Your task to perform on an android device: toggle javascript in the chrome app Image 0: 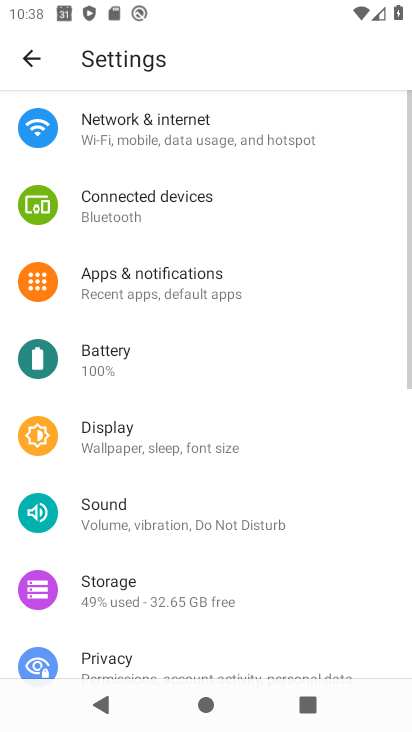
Step 0: press home button
Your task to perform on an android device: toggle javascript in the chrome app Image 1: 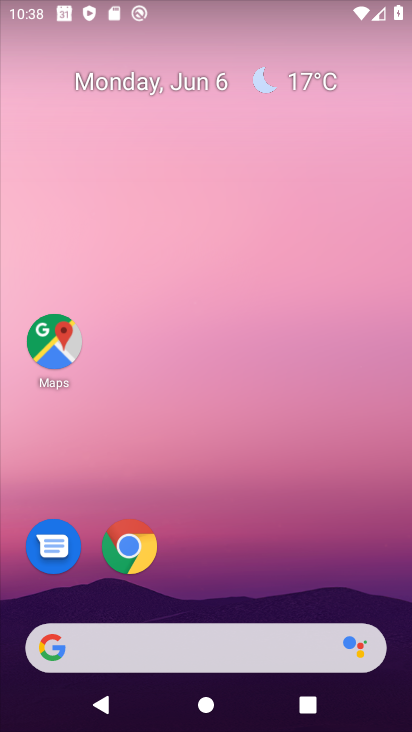
Step 1: drag from (247, 581) to (250, 507)
Your task to perform on an android device: toggle javascript in the chrome app Image 2: 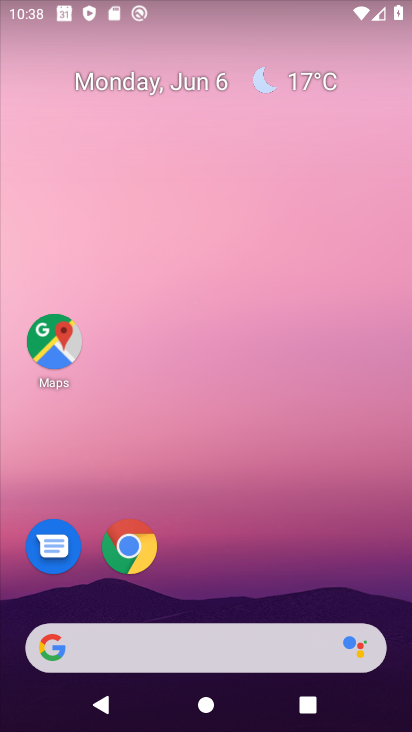
Step 2: drag from (223, 583) to (233, 162)
Your task to perform on an android device: toggle javascript in the chrome app Image 3: 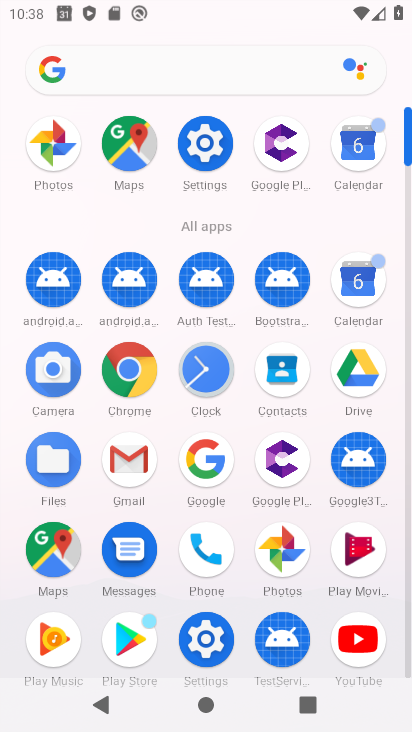
Step 3: click (127, 369)
Your task to perform on an android device: toggle javascript in the chrome app Image 4: 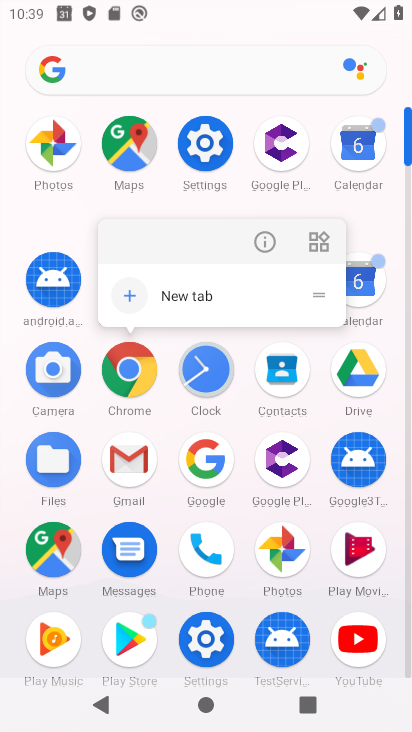
Step 4: click (128, 368)
Your task to perform on an android device: toggle javascript in the chrome app Image 5: 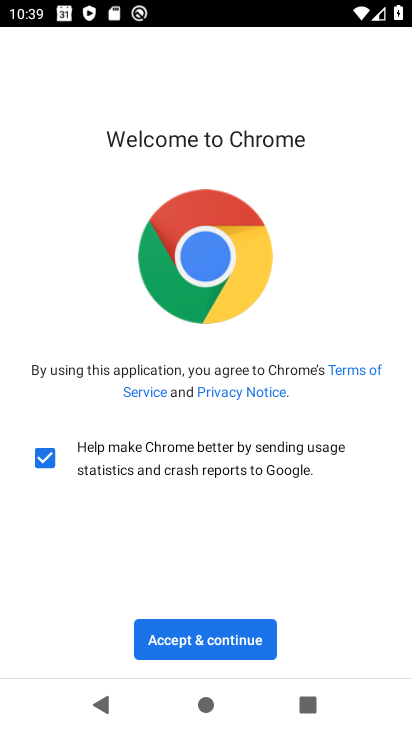
Step 5: click (251, 635)
Your task to perform on an android device: toggle javascript in the chrome app Image 6: 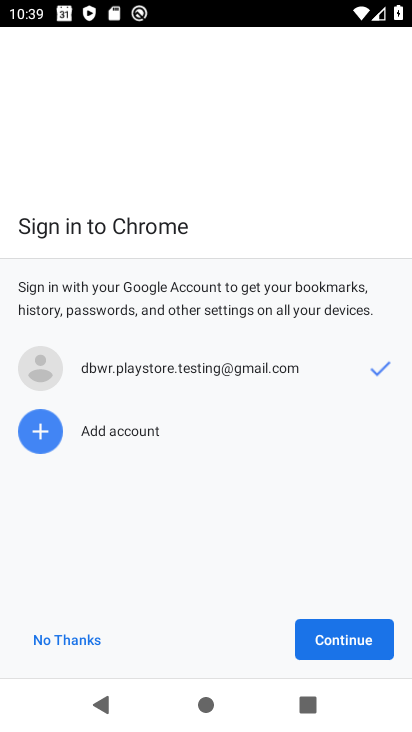
Step 6: click (331, 632)
Your task to perform on an android device: toggle javascript in the chrome app Image 7: 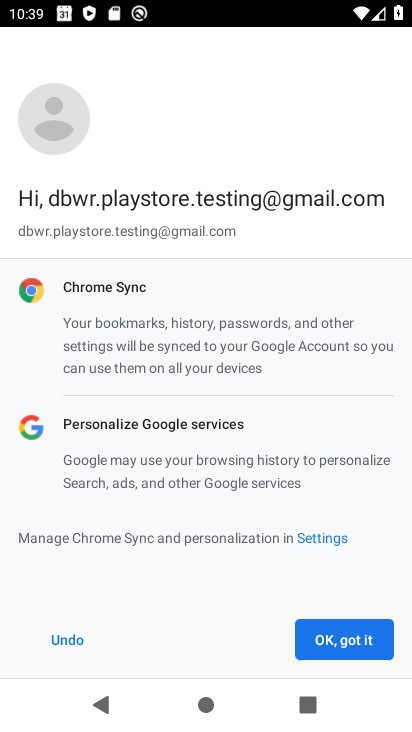
Step 7: click (333, 632)
Your task to perform on an android device: toggle javascript in the chrome app Image 8: 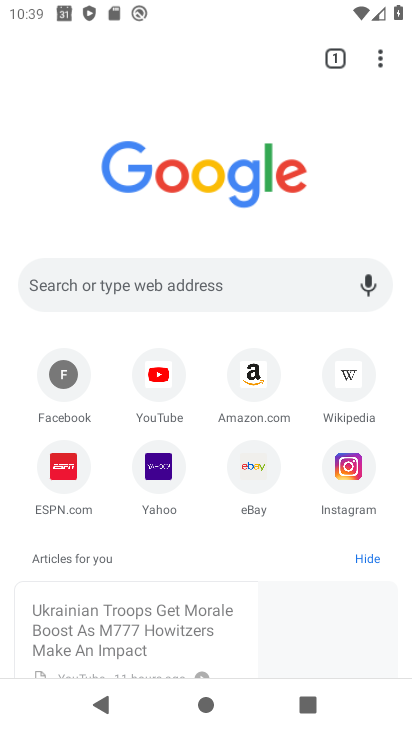
Step 8: click (379, 57)
Your task to perform on an android device: toggle javascript in the chrome app Image 9: 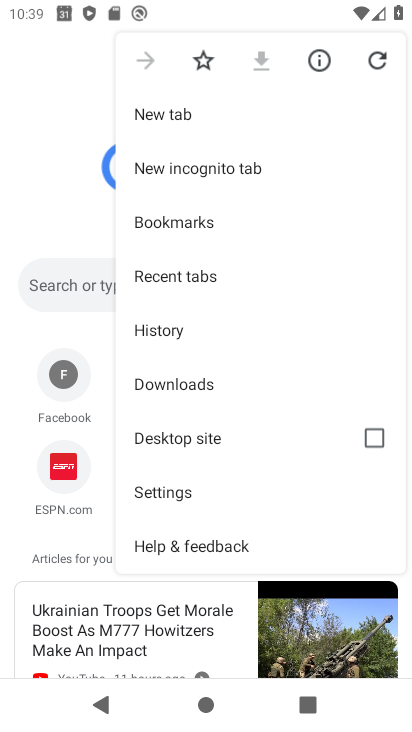
Step 9: click (181, 490)
Your task to perform on an android device: toggle javascript in the chrome app Image 10: 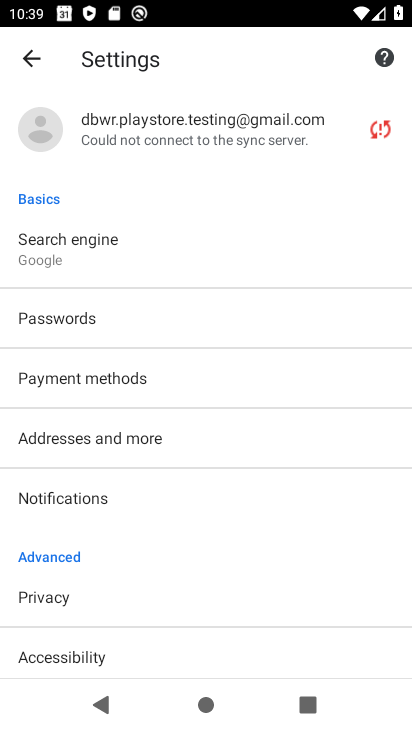
Step 10: drag from (124, 599) to (176, 196)
Your task to perform on an android device: toggle javascript in the chrome app Image 11: 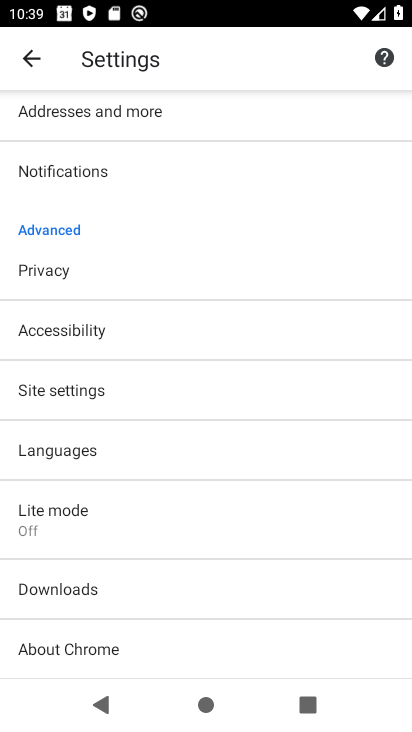
Step 11: click (88, 384)
Your task to perform on an android device: toggle javascript in the chrome app Image 12: 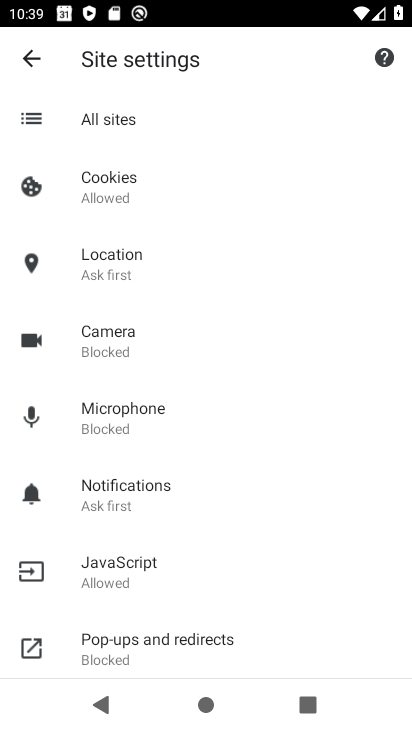
Step 12: click (160, 570)
Your task to perform on an android device: toggle javascript in the chrome app Image 13: 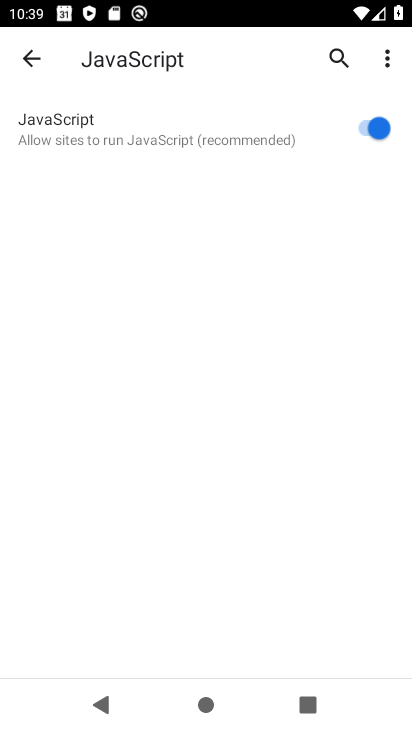
Step 13: click (387, 130)
Your task to perform on an android device: toggle javascript in the chrome app Image 14: 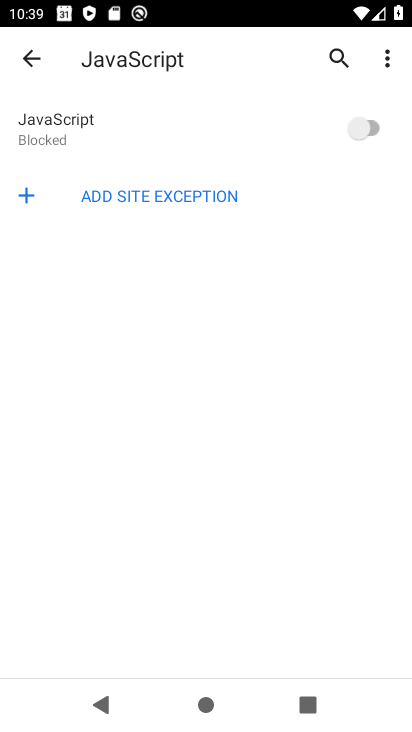
Step 14: task complete